Your task to perform on an android device: empty trash in the gmail app Image 0: 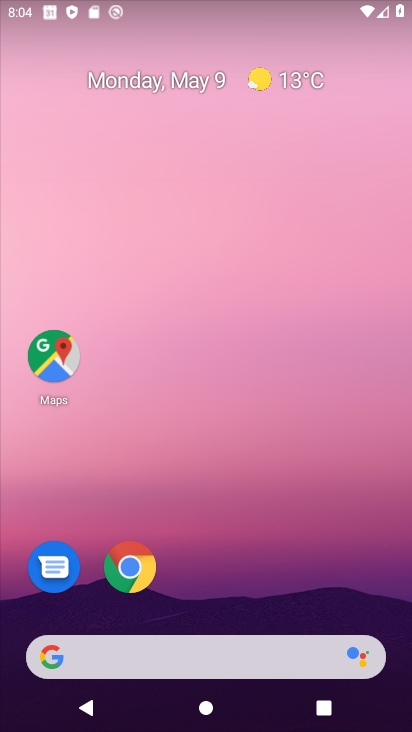
Step 0: drag from (232, 542) to (155, 26)
Your task to perform on an android device: empty trash in the gmail app Image 1: 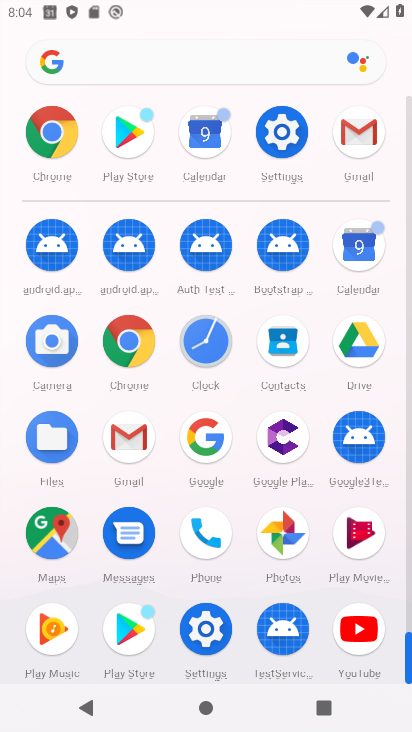
Step 1: click (347, 143)
Your task to perform on an android device: empty trash in the gmail app Image 2: 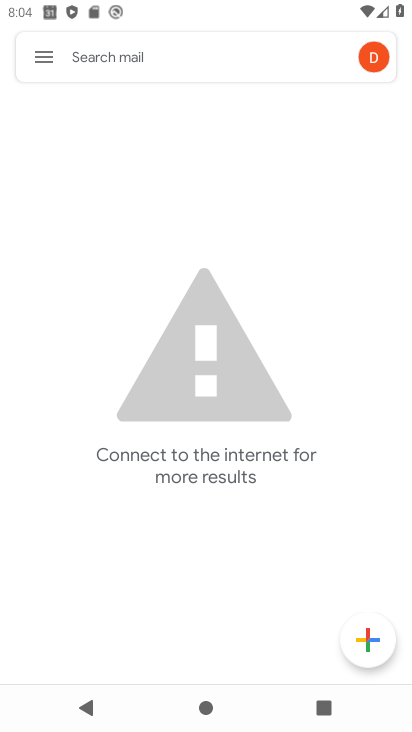
Step 2: click (39, 51)
Your task to perform on an android device: empty trash in the gmail app Image 3: 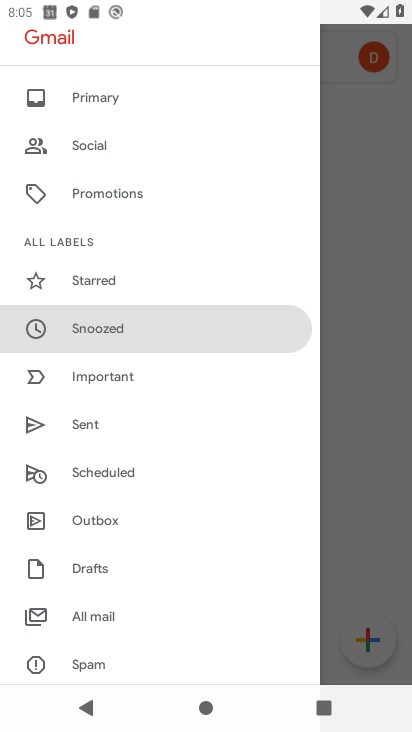
Step 3: drag from (188, 597) to (153, 387)
Your task to perform on an android device: empty trash in the gmail app Image 4: 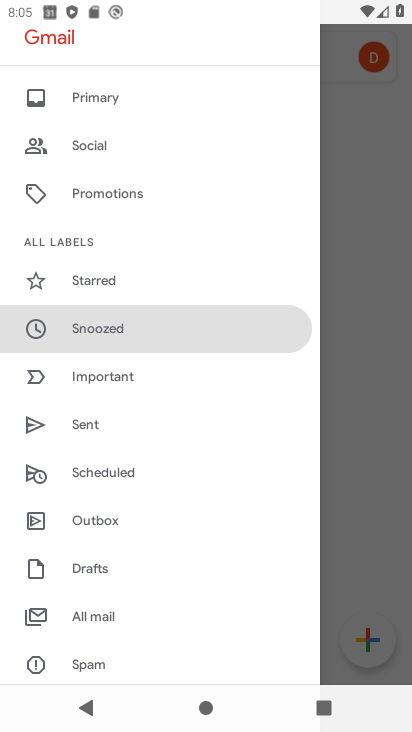
Step 4: drag from (114, 639) to (146, 394)
Your task to perform on an android device: empty trash in the gmail app Image 5: 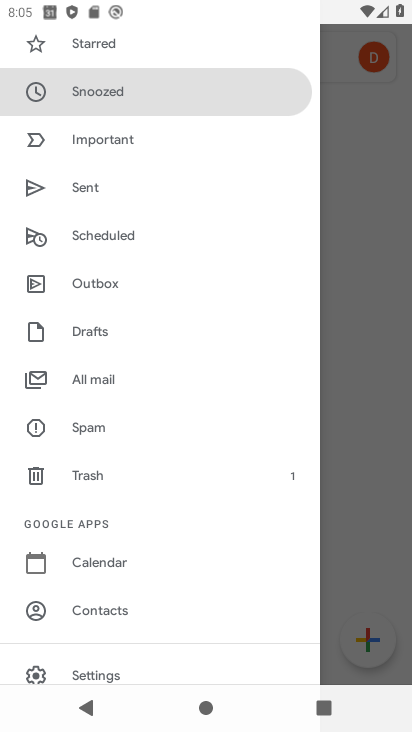
Step 5: click (97, 464)
Your task to perform on an android device: empty trash in the gmail app Image 6: 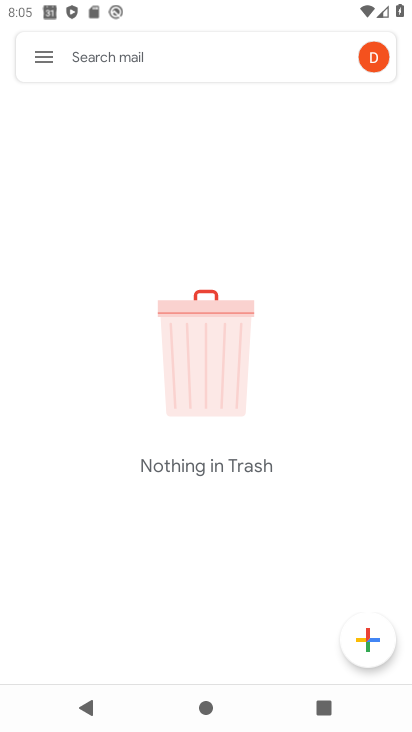
Step 6: task complete